Your task to perform on an android device: Go to settings Image 0: 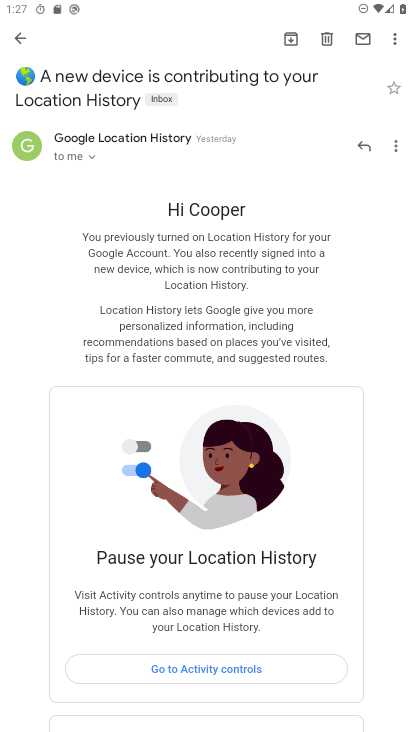
Step 0: press home button
Your task to perform on an android device: Go to settings Image 1: 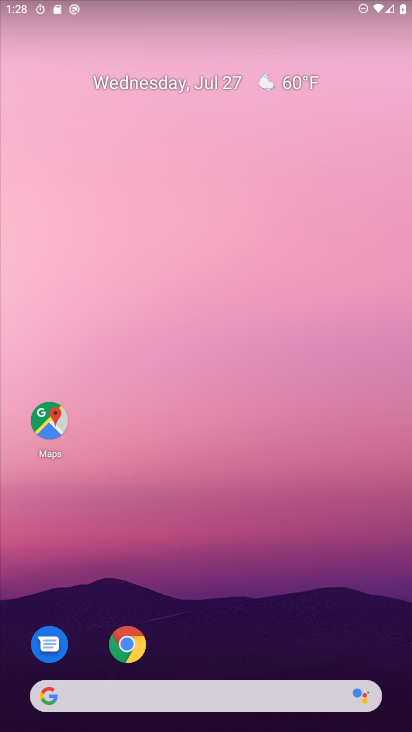
Step 1: drag from (213, 582) to (263, 174)
Your task to perform on an android device: Go to settings Image 2: 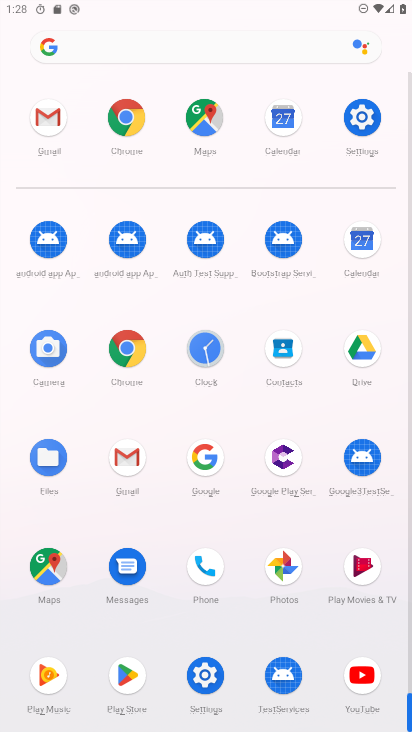
Step 2: click (194, 680)
Your task to perform on an android device: Go to settings Image 3: 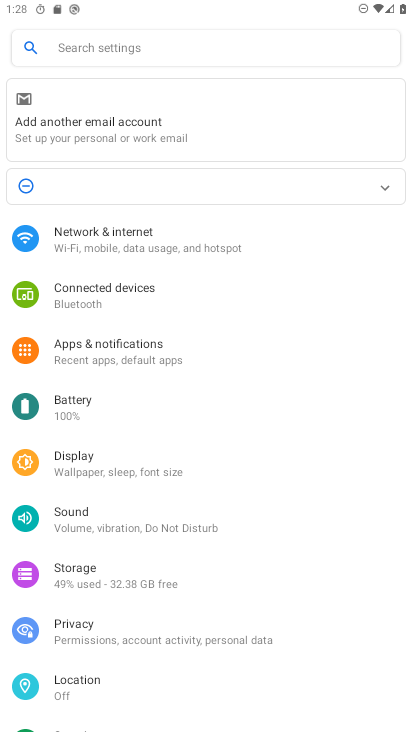
Step 3: task complete